Your task to perform on an android device: install app "TextNow: Call + Text Unlimited" Image 0: 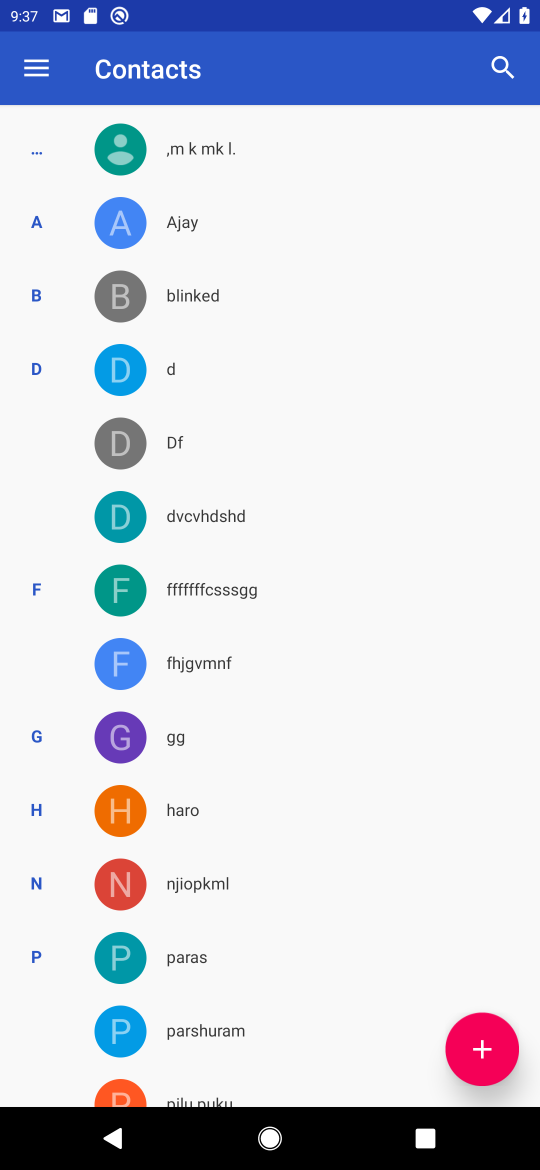
Step 0: press home button
Your task to perform on an android device: install app "TextNow: Call + Text Unlimited" Image 1: 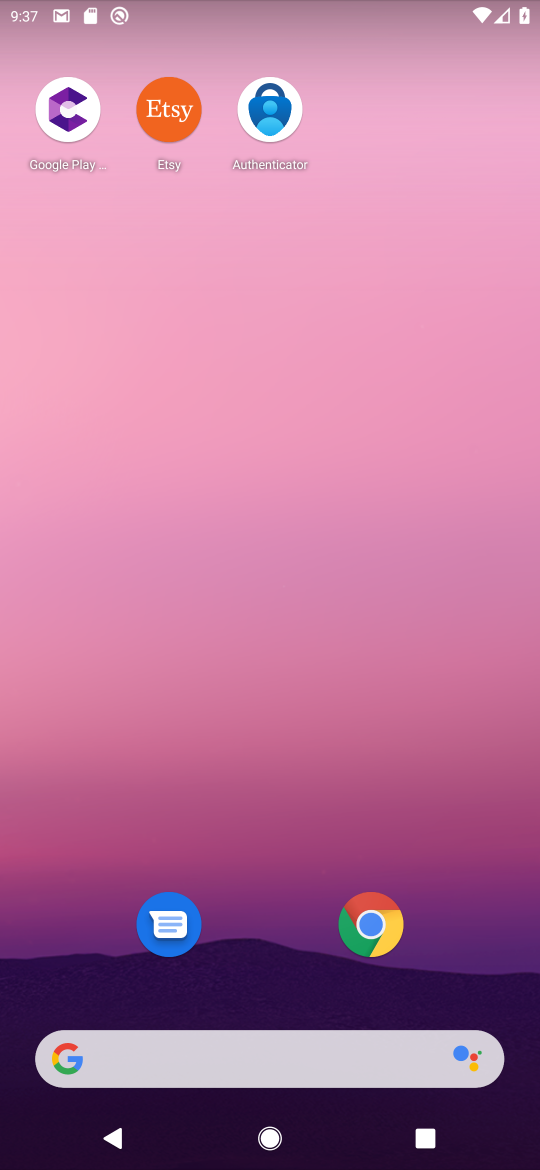
Step 1: drag from (236, 1029) to (305, 60)
Your task to perform on an android device: install app "TextNow: Call + Text Unlimited" Image 2: 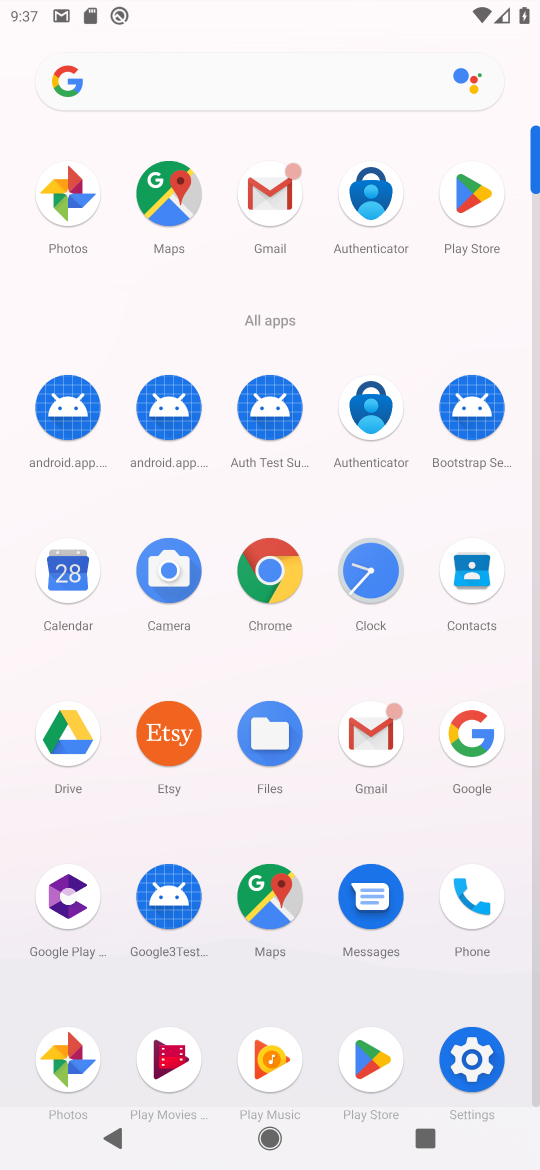
Step 2: click (377, 1070)
Your task to perform on an android device: install app "TextNow: Call + Text Unlimited" Image 3: 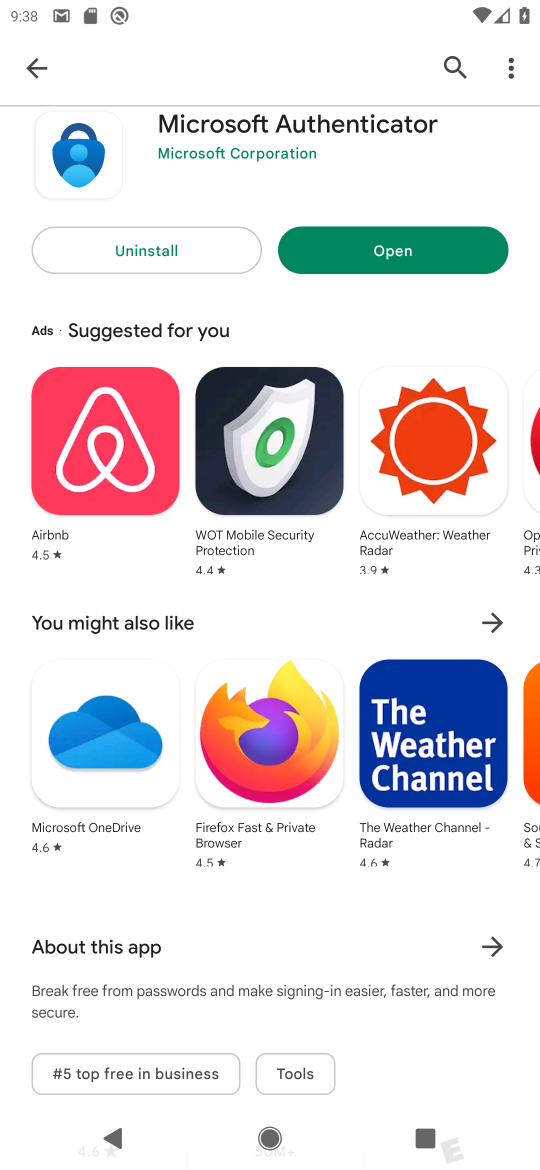
Step 3: click (448, 73)
Your task to perform on an android device: install app "TextNow: Call + Text Unlimited" Image 4: 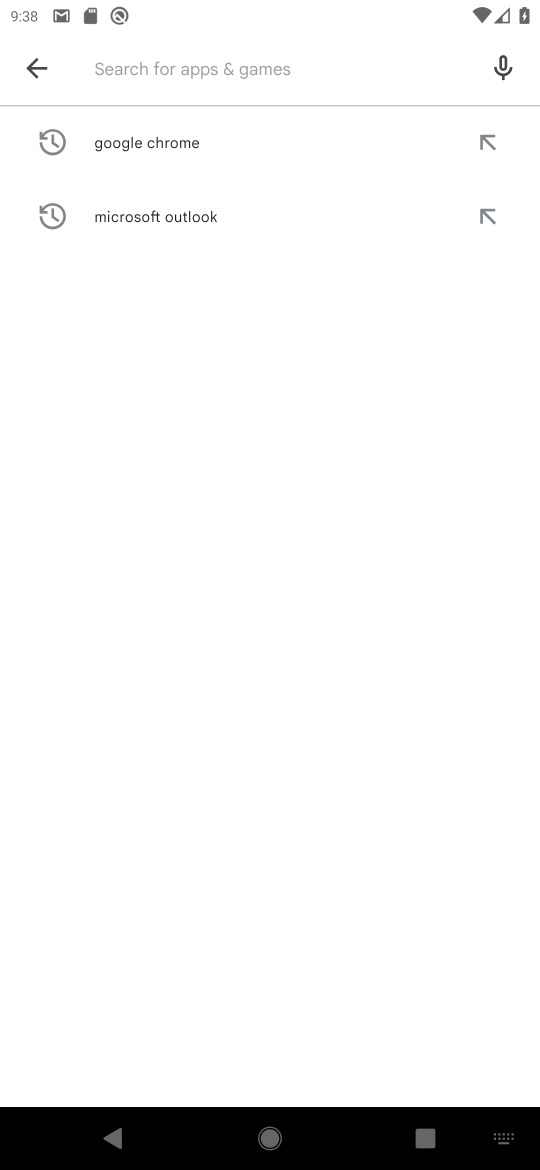
Step 4: type "TextNow: Call + Text Unlimited"
Your task to perform on an android device: install app "TextNow: Call + Text Unlimited" Image 5: 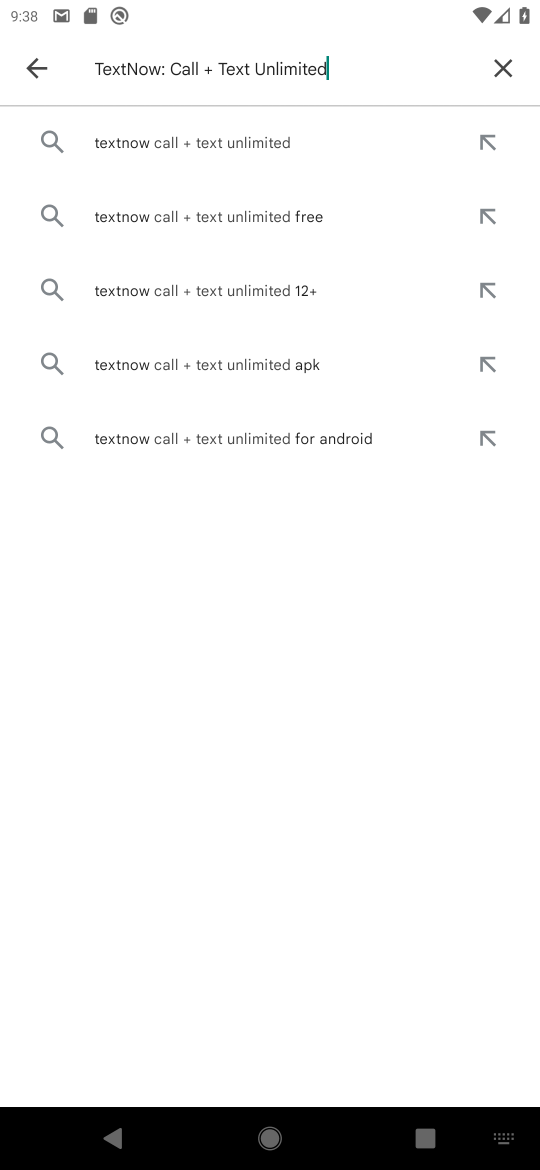
Step 5: click (162, 146)
Your task to perform on an android device: install app "TextNow: Call + Text Unlimited" Image 6: 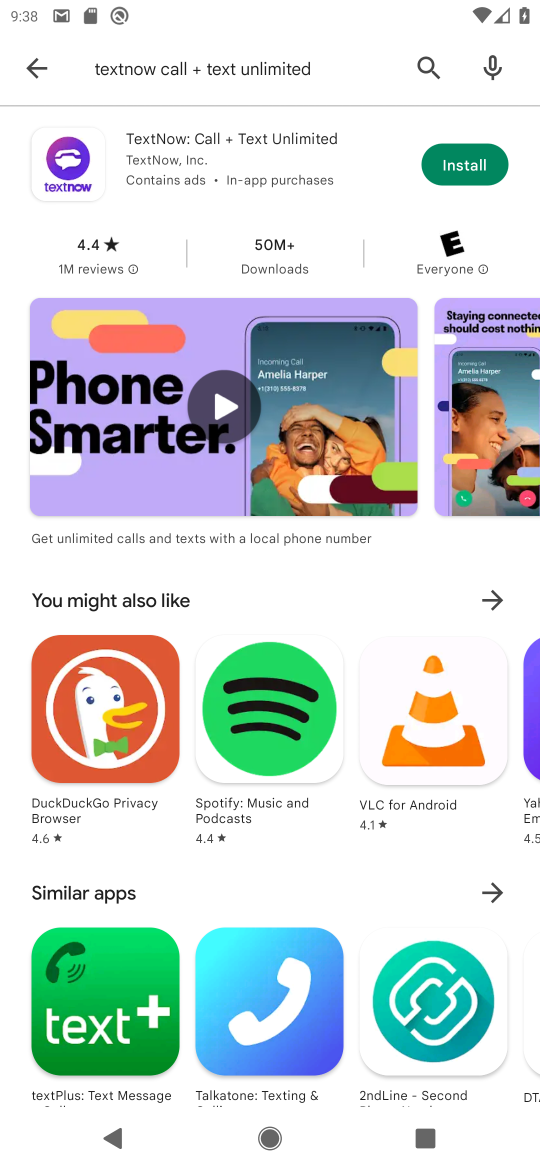
Step 6: click (463, 163)
Your task to perform on an android device: install app "TextNow: Call + Text Unlimited" Image 7: 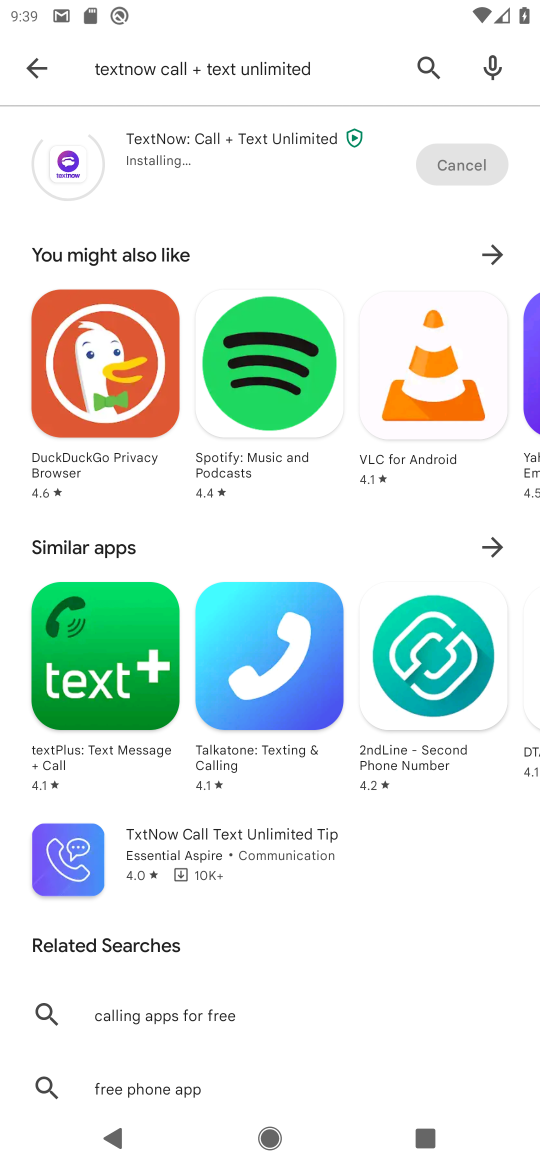
Step 7: drag from (225, 851) to (323, 1079)
Your task to perform on an android device: install app "TextNow: Call + Text Unlimited" Image 8: 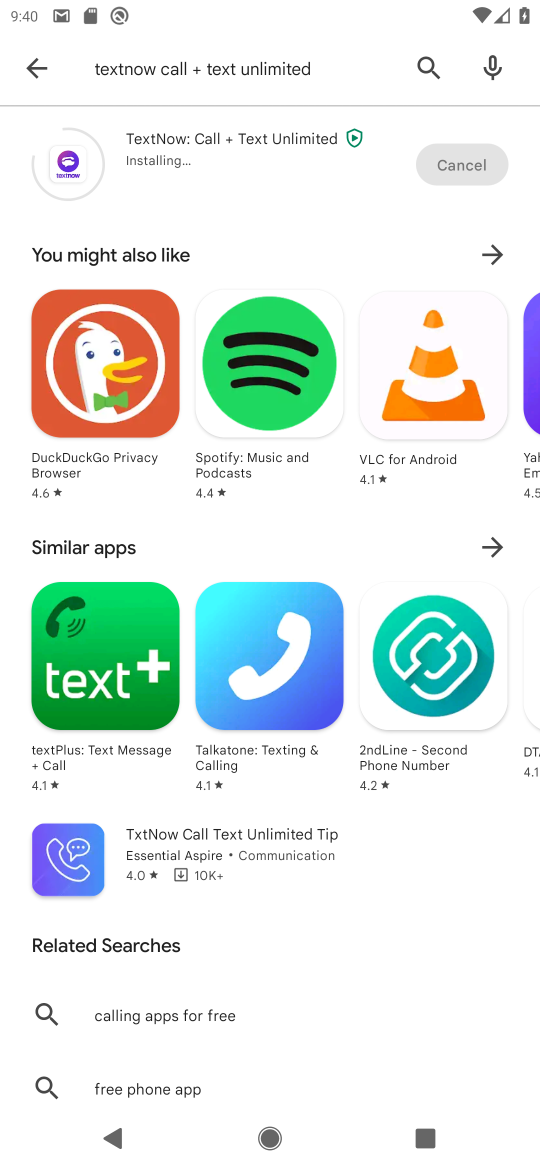
Step 8: click (304, 961)
Your task to perform on an android device: install app "TextNow: Call + Text Unlimited" Image 9: 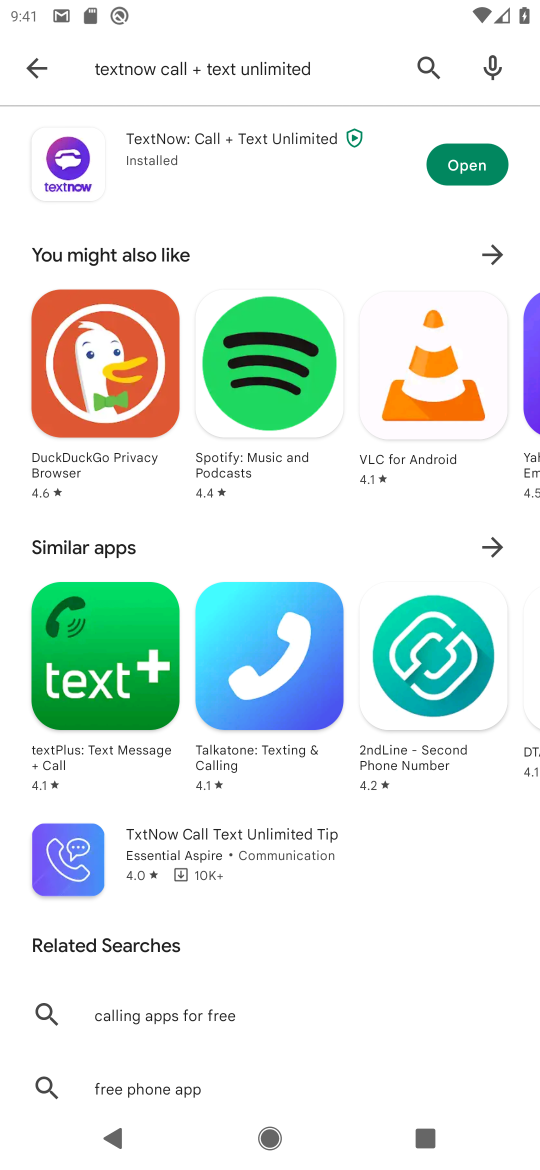
Step 9: task complete